Your task to perform on an android device: turn on data saver in the chrome app Image 0: 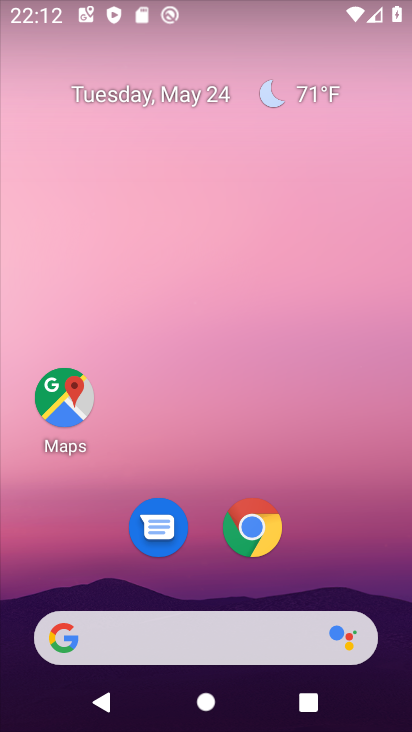
Step 0: click (250, 526)
Your task to perform on an android device: turn on data saver in the chrome app Image 1: 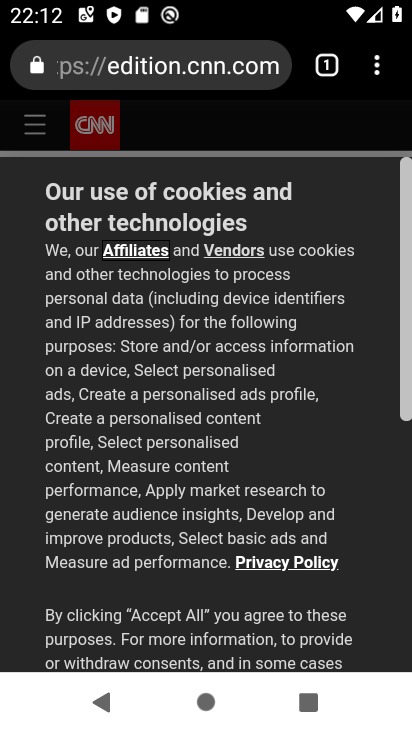
Step 1: click (378, 61)
Your task to perform on an android device: turn on data saver in the chrome app Image 2: 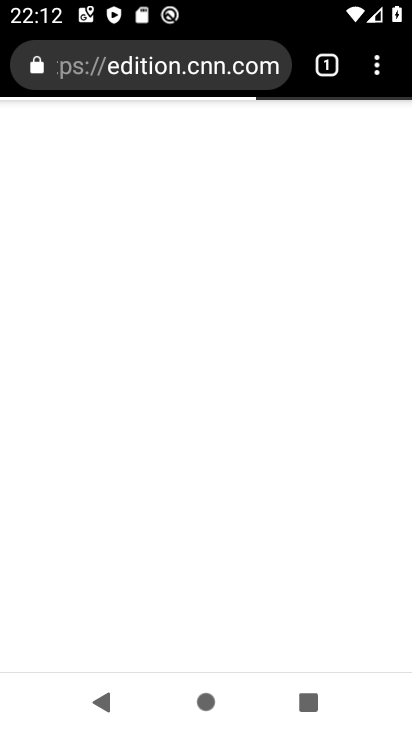
Step 2: click (378, 61)
Your task to perform on an android device: turn on data saver in the chrome app Image 3: 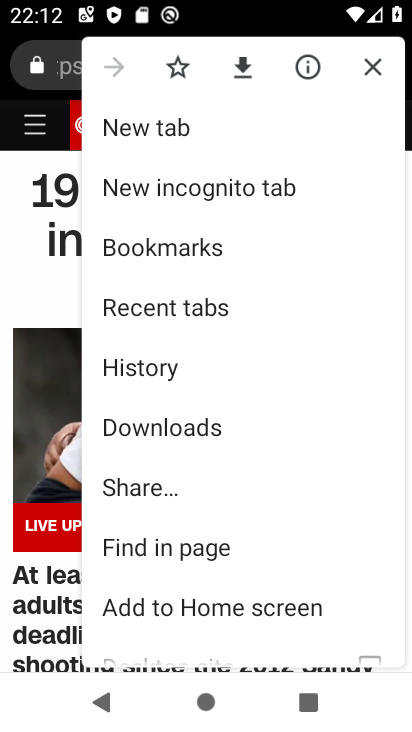
Step 3: drag from (161, 536) to (158, 233)
Your task to perform on an android device: turn on data saver in the chrome app Image 4: 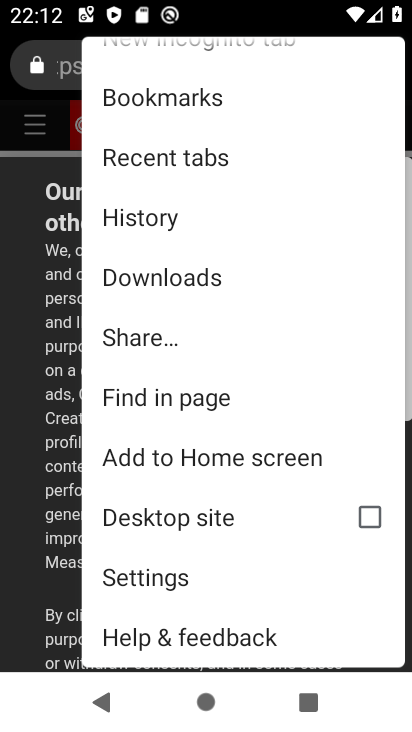
Step 4: click (143, 586)
Your task to perform on an android device: turn on data saver in the chrome app Image 5: 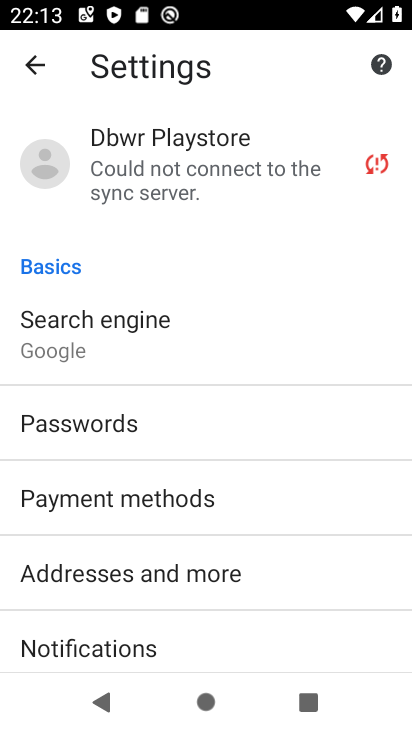
Step 5: drag from (181, 582) to (181, 200)
Your task to perform on an android device: turn on data saver in the chrome app Image 6: 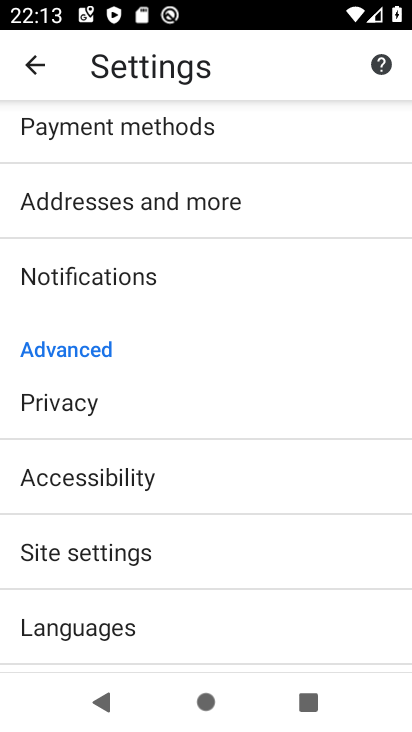
Step 6: drag from (168, 601) to (157, 429)
Your task to perform on an android device: turn on data saver in the chrome app Image 7: 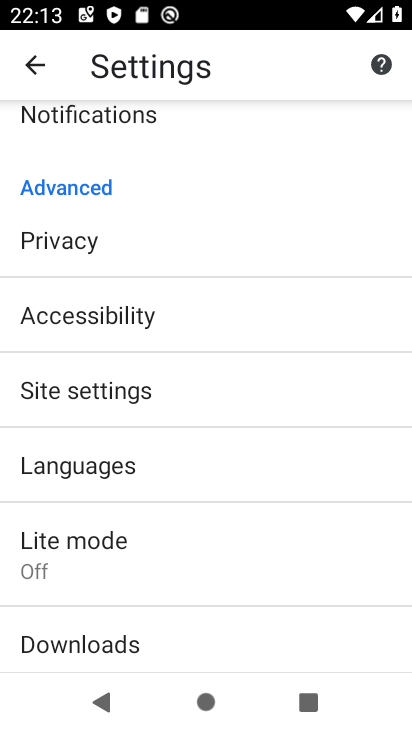
Step 7: click (99, 567)
Your task to perform on an android device: turn on data saver in the chrome app Image 8: 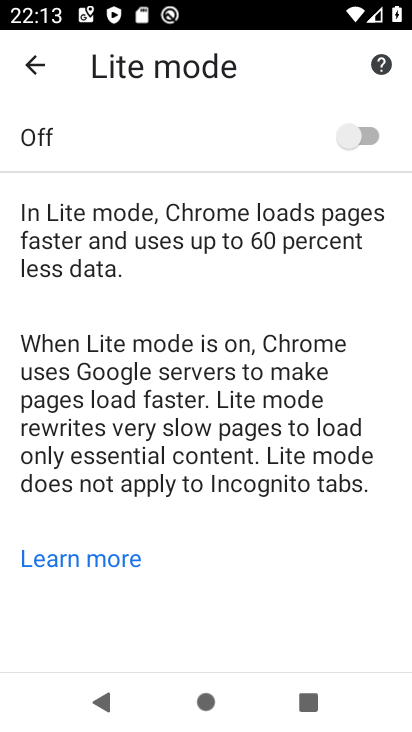
Step 8: click (362, 137)
Your task to perform on an android device: turn on data saver in the chrome app Image 9: 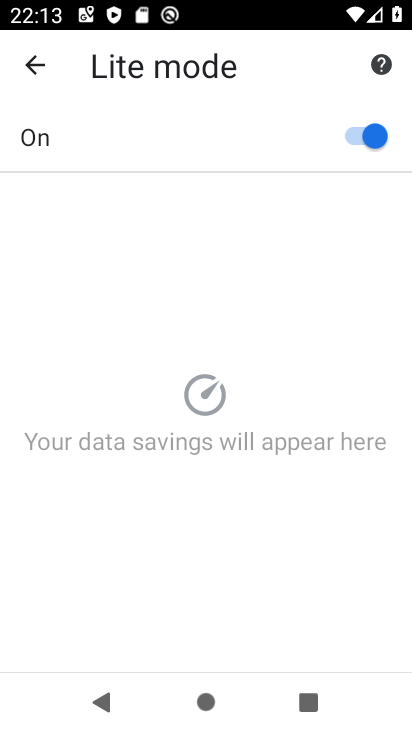
Step 9: task complete